Your task to perform on an android device: move a message to another label in the gmail app Image 0: 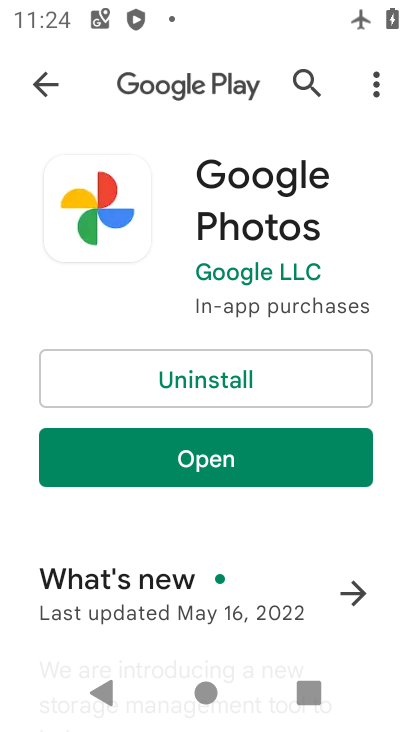
Step 0: press home button
Your task to perform on an android device: move a message to another label in the gmail app Image 1: 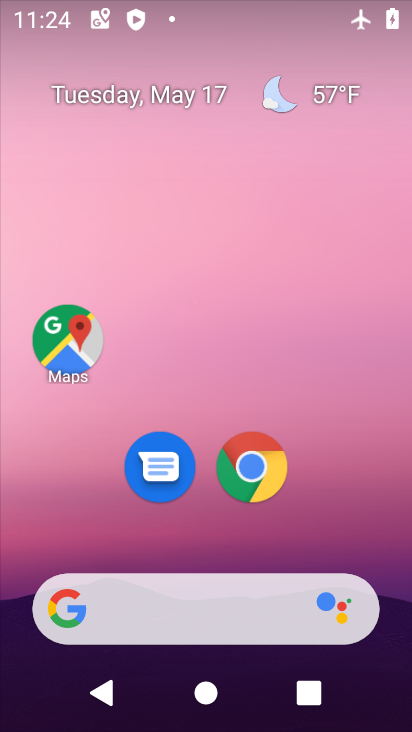
Step 1: drag from (264, 642) to (261, 198)
Your task to perform on an android device: move a message to another label in the gmail app Image 2: 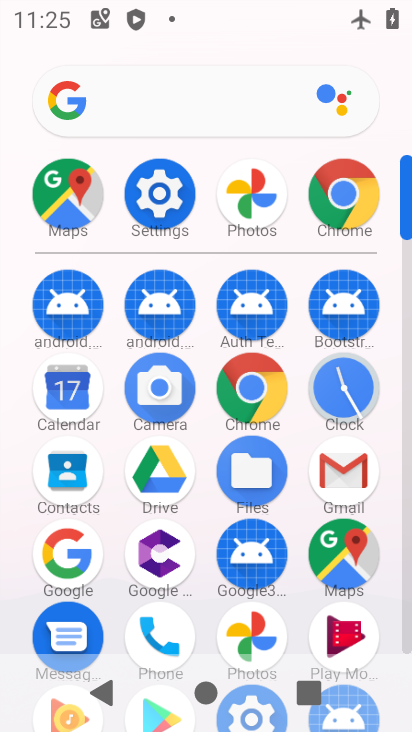
Step 2: click (342, 479)
Your task to perform on an android device: move a message to another label in the gmail app Image 3: 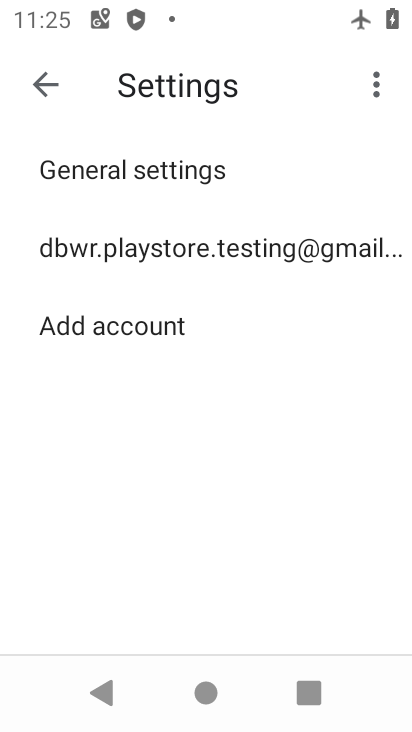
Step 3: click (152, 249)
Your task to perform on an android device: move a message to another label in the gmail app Image 4: 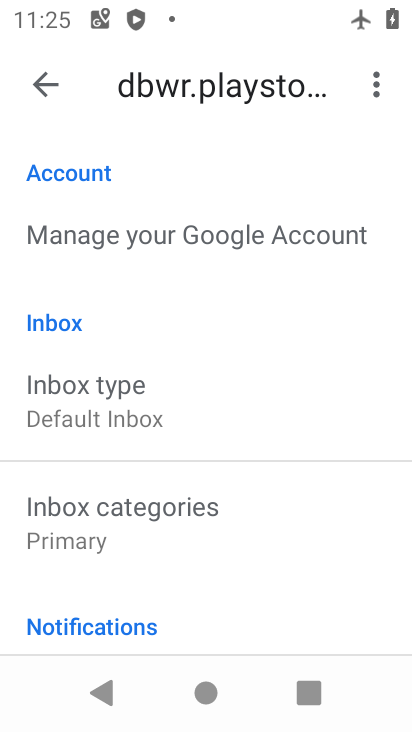
Step 4: drag from (85, 520) to (223, 232)
Your task to perform on an android device: move a message to another label in the gmail app Image 5: 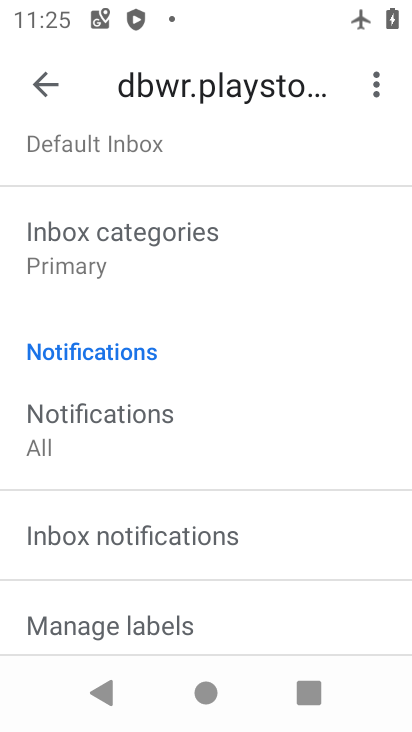
Step 5: click (123, 597)
Your task to perform on an android device: move a message to another label in the gmail app Image 6: 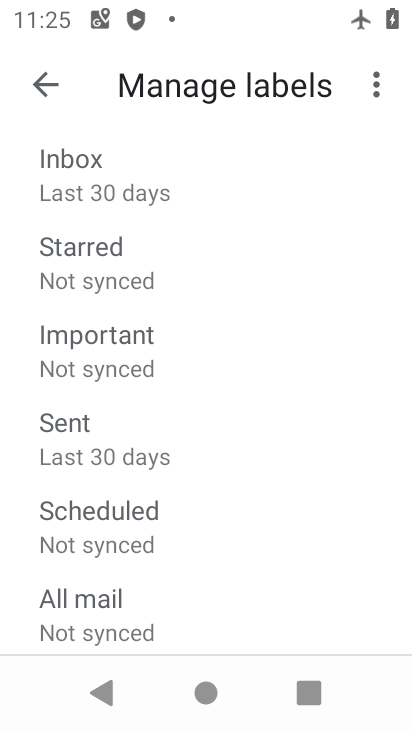
Step 6: click (97, 436)
Your task to perform on an android device: move a message to another label in the gmail app Image 7: 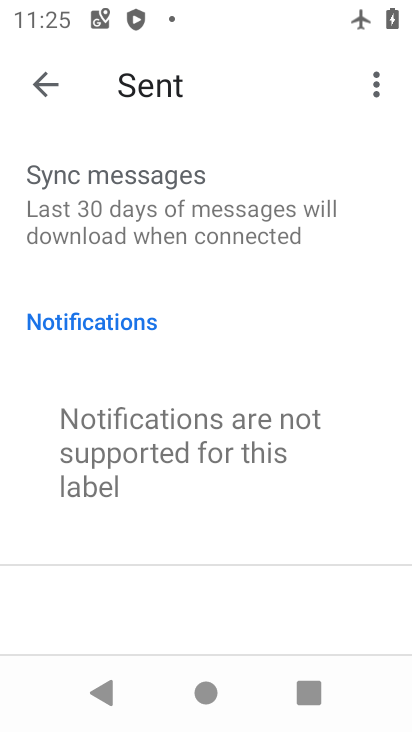
Step 7: task complete